Your task to perform on an android device: change the clock display to show seconds Image 0: 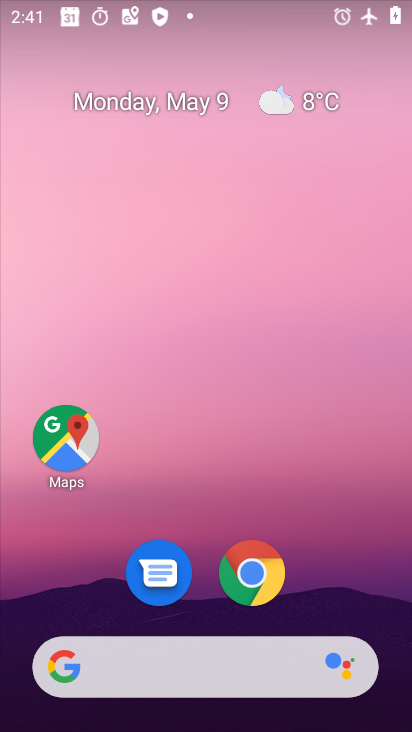
Step 0: drag from (190, 669) to (330, 183)
Your task to perform on an android device: change the clock display to show seconds Image 1: 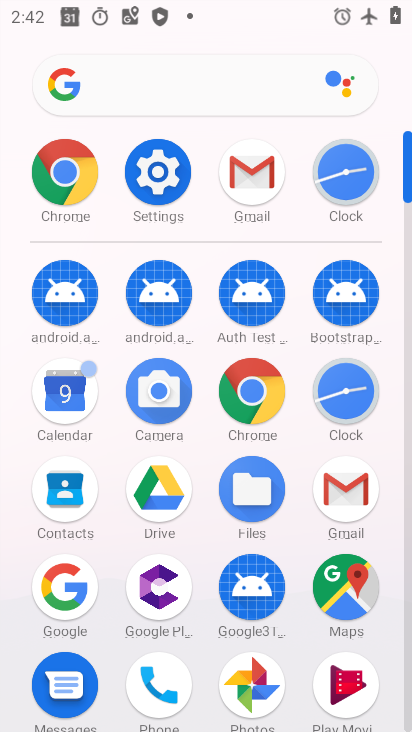
Step 1: click (348, 191)
Your task to perform on an android device: change the clock display to show seconds Image 2: 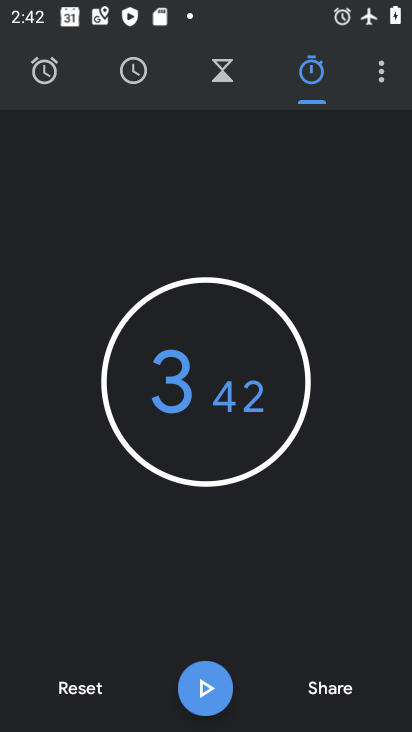
Step 2: click (380, 80)
Your task to perform on an android device: change the clock display to show seconds Image 3: 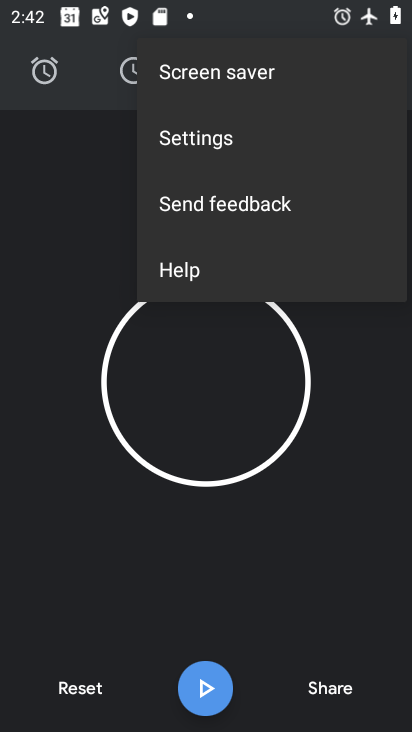
Step 3: click (211, 138)
Your task to perform on an android device: change the clock display to show seconds Image 4: 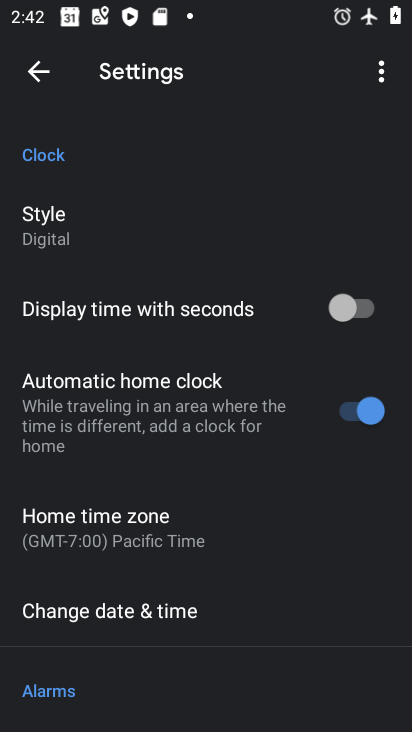
Step 4: click (348, 303)
Your task to perform on an android device: change the clock display to show seconds Image 5: 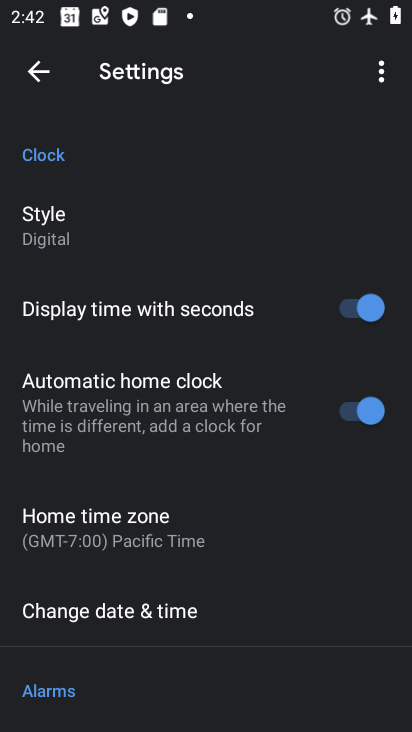
Step 5: task complete